Your task to perform on an android device: Open calendar and show me the first week of next month Image 0: 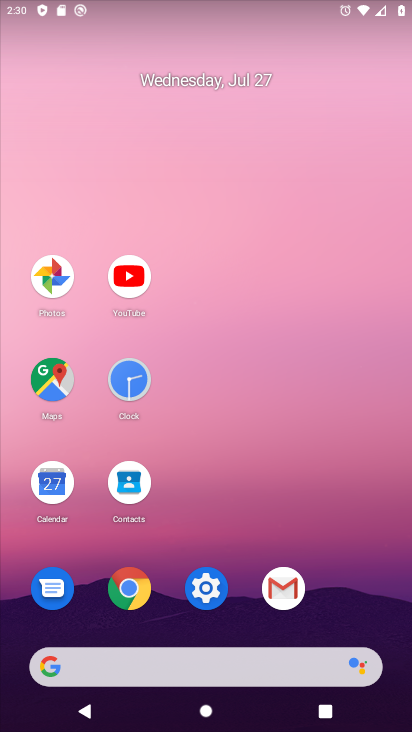
Step 0: click (52, 476)
Your task to perform on an android device: Open calendar and show me the first week of next month Image 1: 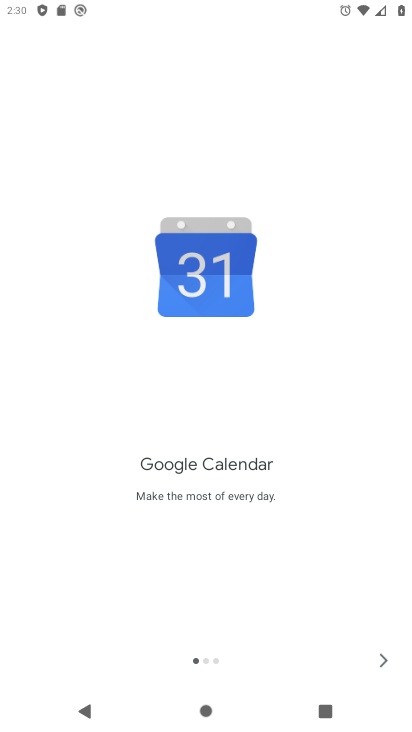
Step 1: click (380, 662)
Your task to perform on an android device: Open calendar and show me the first week of next month Image 2: 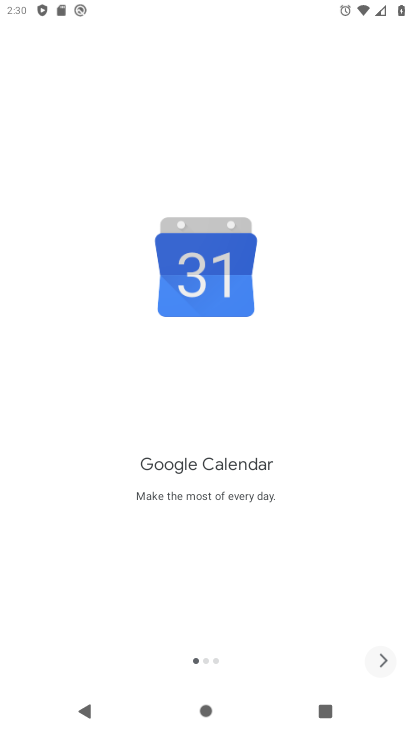
Step 2: click (380, 662)
Your task to perform on an android device: Open calendar and show me the first week of next month Image 3: 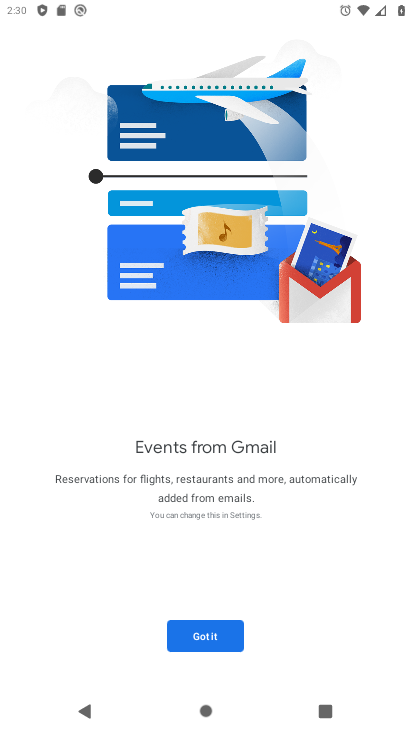
Step 3: click (203, 632)
Your task to perform on an android device: Open calendar and show me the first week of next month Image 4: 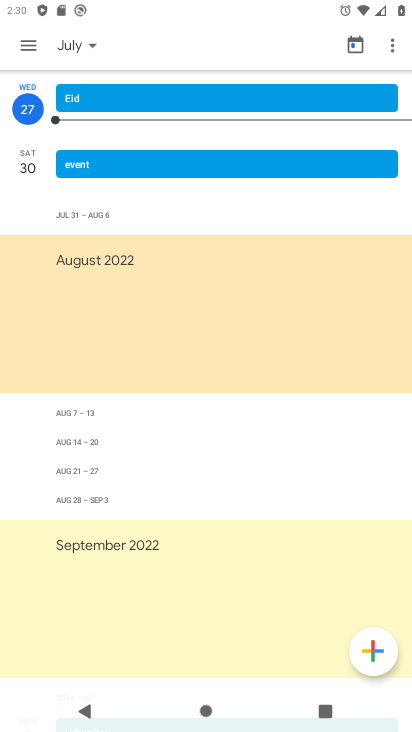
Step 4: click (27, 42)
Your task to perform on an android device: Open calendar and show me the first week of next month Image 5: 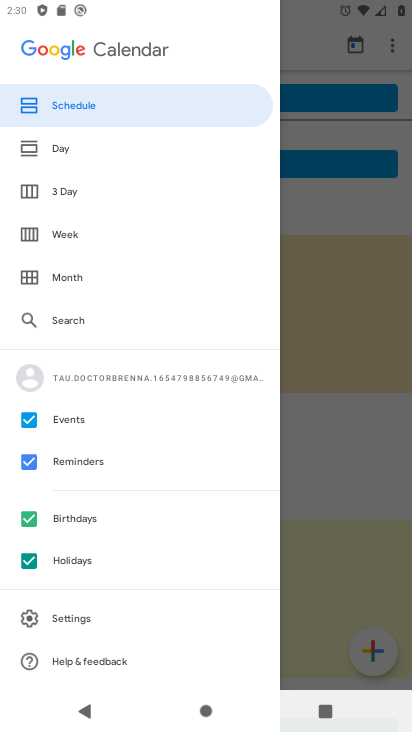
Step 5: click (60, 241)
Your task to perform on an android device: Open calendar and show me the first week of next month Image 6: 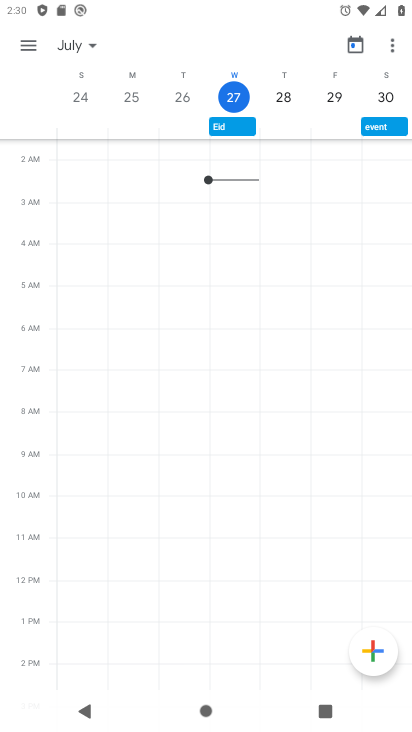
Step 6: click (86, 43)
Your task to perform on an android device: Open calendar and show me the first week of next month Image 7: 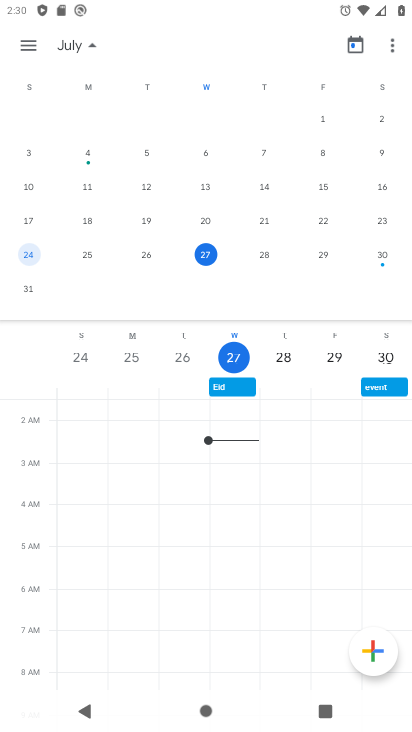
Step 7: drag from (337, 186) to (1, 155)
Your task to perform on an android device: Open calendar and show me the first week of next month Image 8: 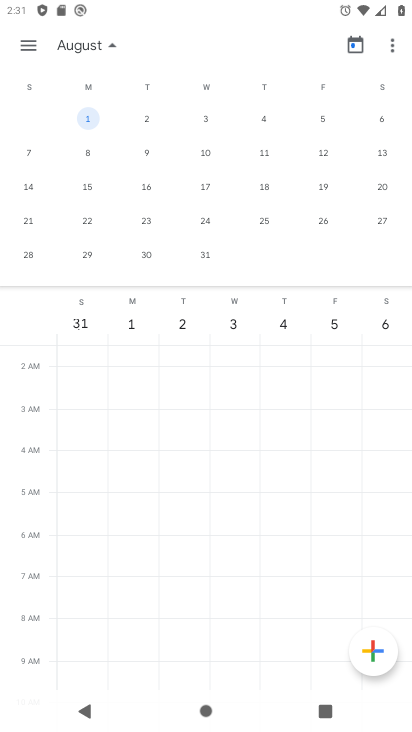
Step 8: click (198, 525)
Your task to perform on an android device: Open calendar and show me the first week of next month Image 9: 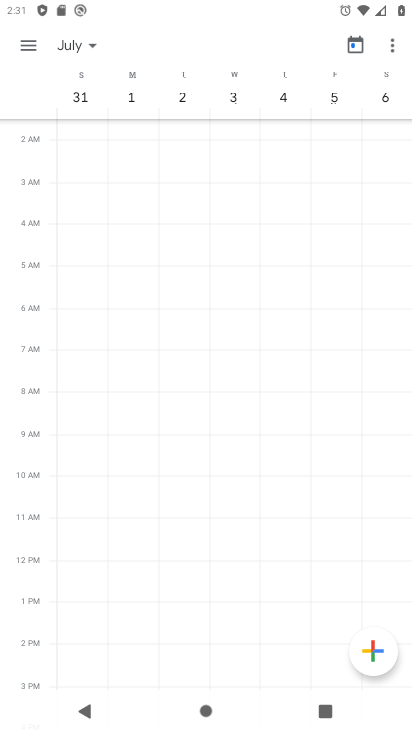
Step 9: task complete